Your task to perform on an android device: What's the weather going to be this weekend? Image 0: 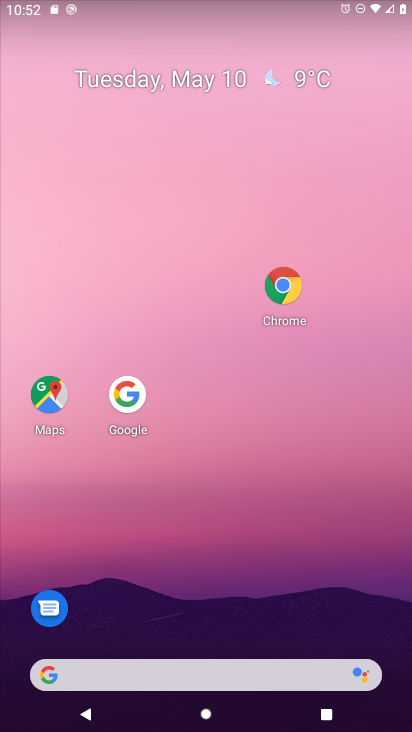
Step 0: click (319, 85)
Your task to perform on an android device: What's the weather going to be this weekend? Image 1: 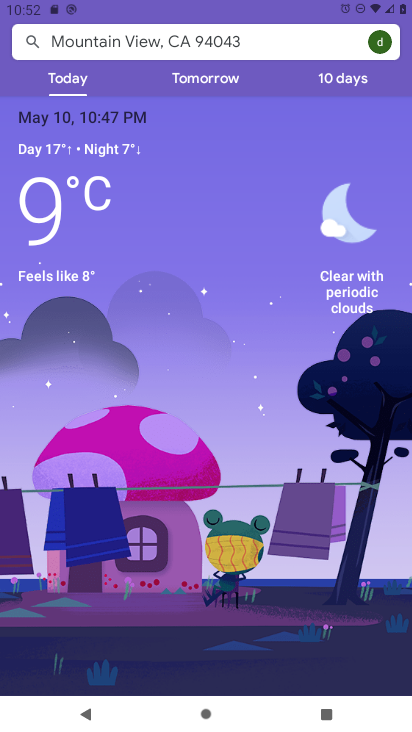
Step 1: click (332, 82)
Your task to perform on an android device: What's the weather going to be this weekend? Image 2: 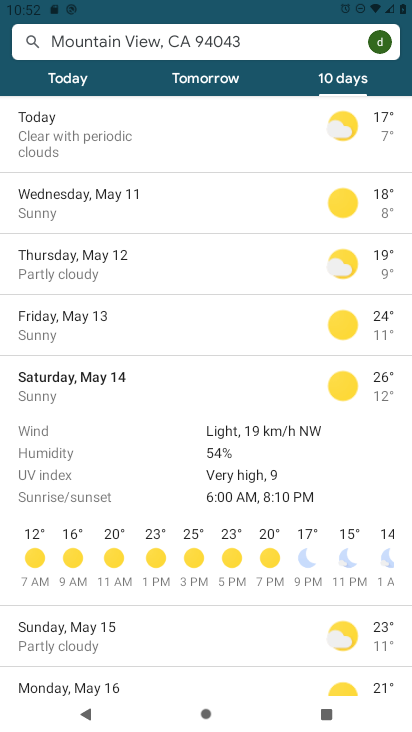
Step 2: task complete